Your task to perform on an android device: open a bookmark in the chrome app Image 0: 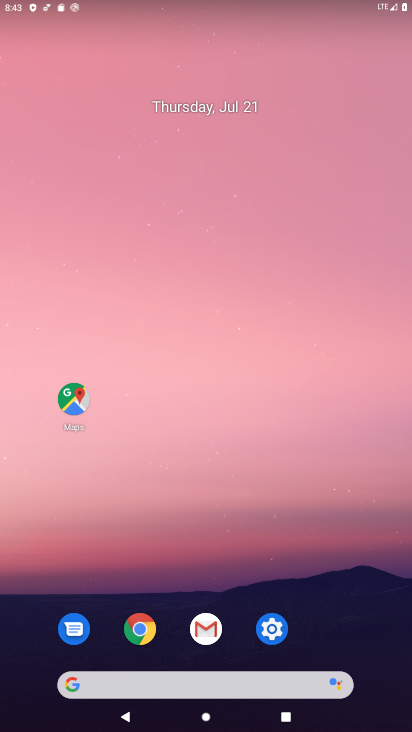
Step 0: click (139, 629)
Your task to perform on an android device: open a bookmark in the chrome app Image 1: 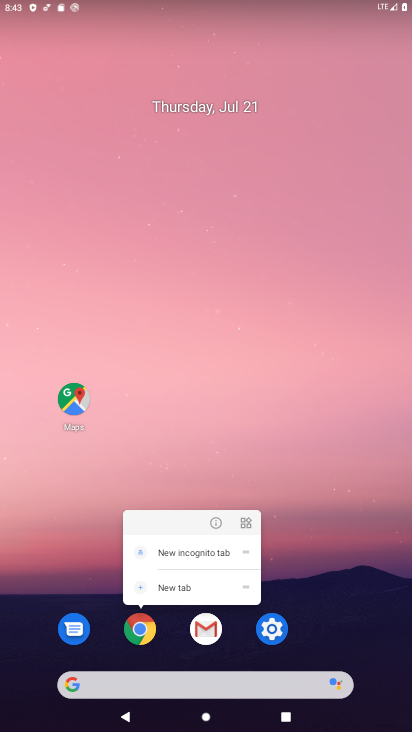
Step 1: click (133, 629)
Your task to perform on an android device: open a bookmark in the chrome app Image 2: 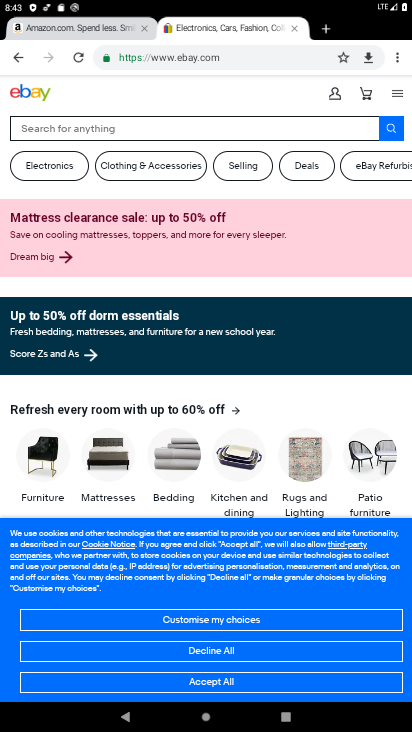
Step 2: click (397, 64)
Your task to perform on an android device: open a bookmark in the chrome app Image 3: 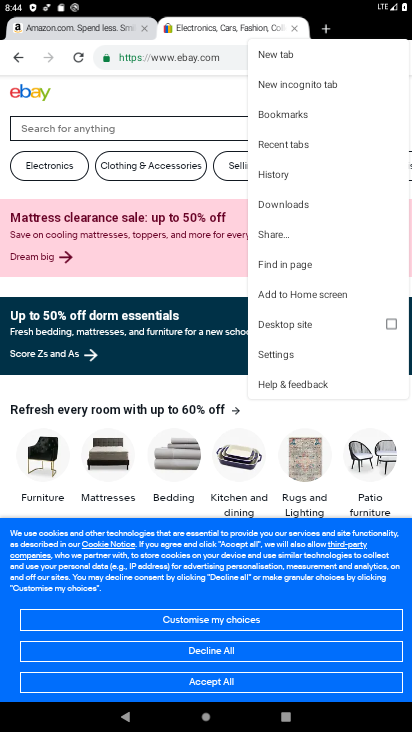
Step 3: click (288, 115)
Your task to perform on an android device: open a bookmark in the chrome app Image 4: 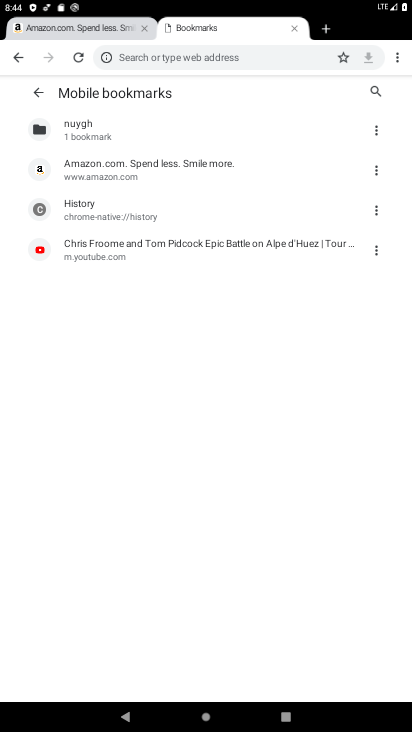
Step 4: click (110, 161)
Your task to perform on an android device: open a bookmark in the chrome app Image 5: 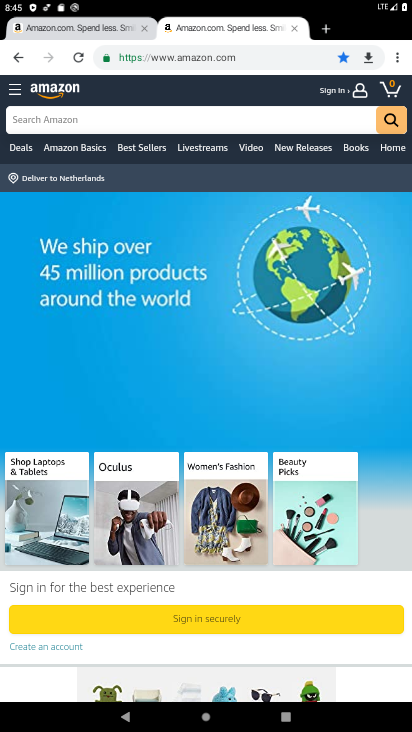
Step 5: task complete